Your task to perform on an android device: open app "Expedia: Hotels, Flights & Car" (install if not already installed) Image 0: 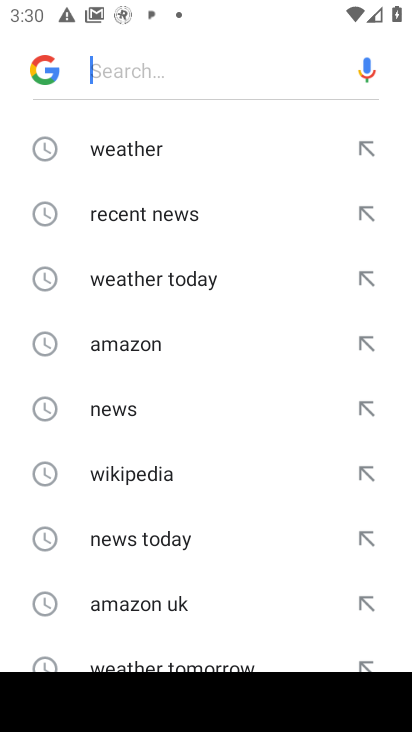
Step 0: press home button
Your task to perform on an android device: open app "Expedia: Hotels, Flights & Car" (install if not already installed) Image 1: 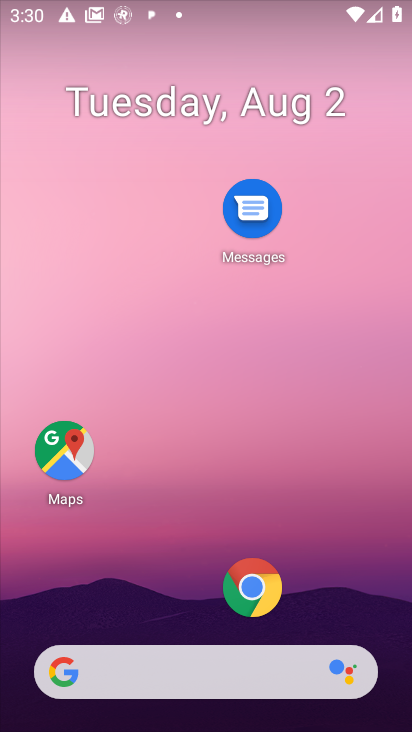
Step 1: drag from (197, 589) to (223, 257)
Your task to perform on an android device: open app "Expedia: Hotels, Flights & Car" (install if not already installed) Image 2: 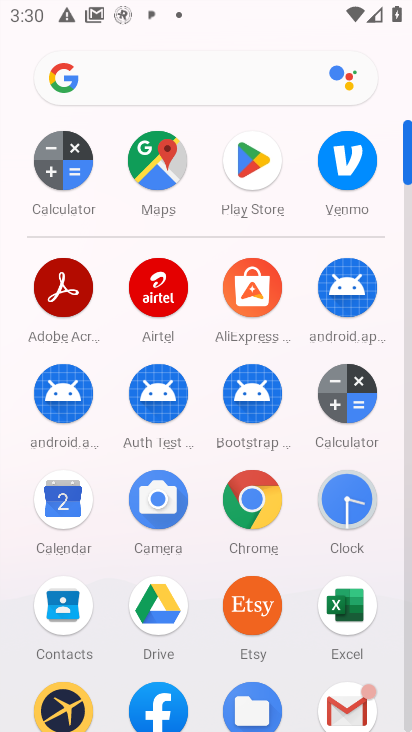
Step 2: click (253, 167)
Your task to perform on an android device: open app "Expedia: Hotels, Flights & Car" (install if not already installed) Image 3: 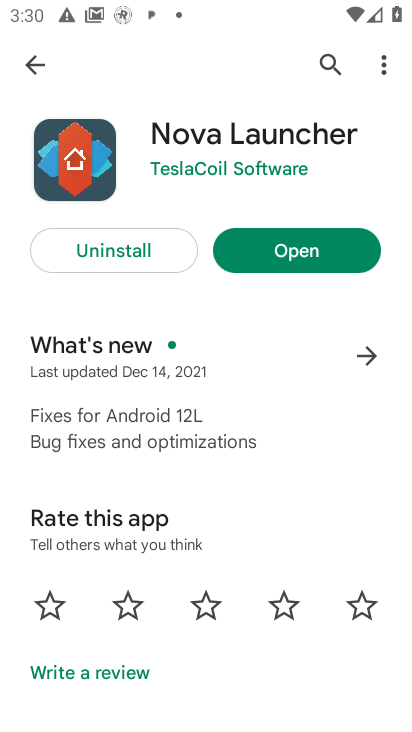
Step 3: click (323, 71)
Your task to perform on an android device: open app "Expedia: Hotels, Flights & Car" (install if not already installed) Image 4: 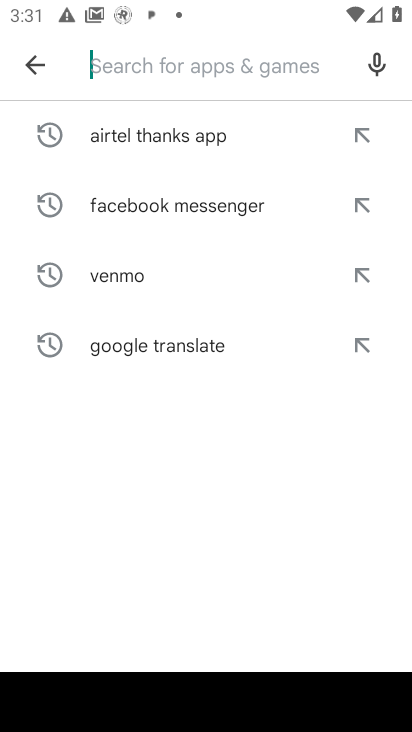
Step 4: type "edia: Hotels, Flights & Ca"
Your task to perform on an android device: open app "Expedia: Hotels, Flights & Car" (install if not already installed) Image 5: 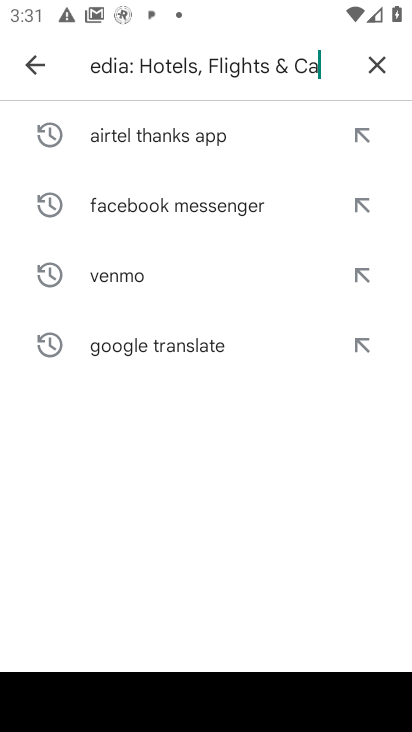
Step 5: type ""
Your task to perform on an android device: open app "Expedia: Hotels, Flights & Car" (install if not already installed) Image 6: 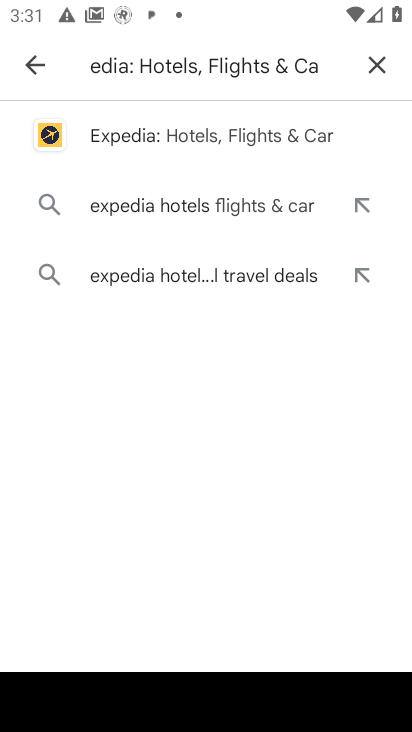
Step 6: click (170, 138)
Your task to perform on an android device: open app "Expedia: Hotels, Flights & Car" (install if not already installed) Image 7: 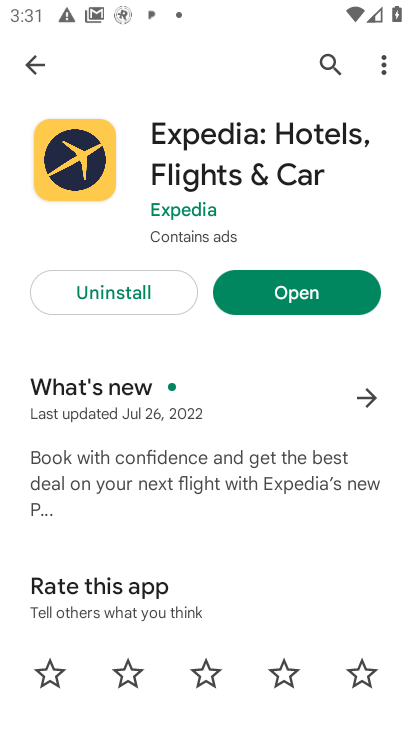
Step 7: click (257, 307)
Your task to perform on an android device: open app "Expedia: Hotels, Flights & Car" (install if not already installed) Image 8: 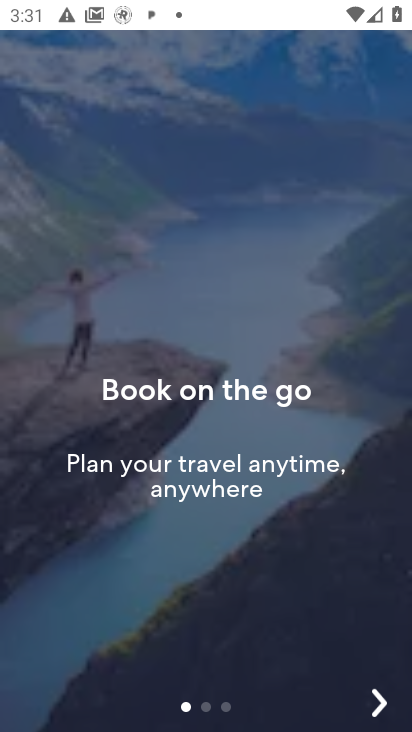
Step 8: task complete